Your task to perform on an android device: Add "panasonic triple a" to the cart on bestbuy.com Image 0: 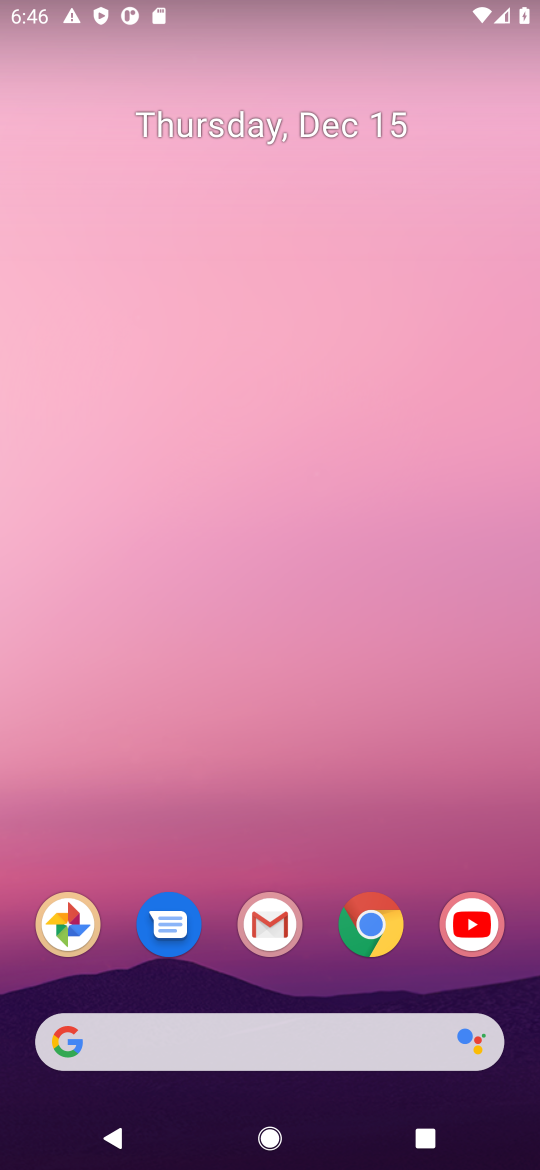
Step 0: click (380, 936)
Your task to perform on an android device: Add "panasonic triple a" to the cart on bestbuy.com Image 1: 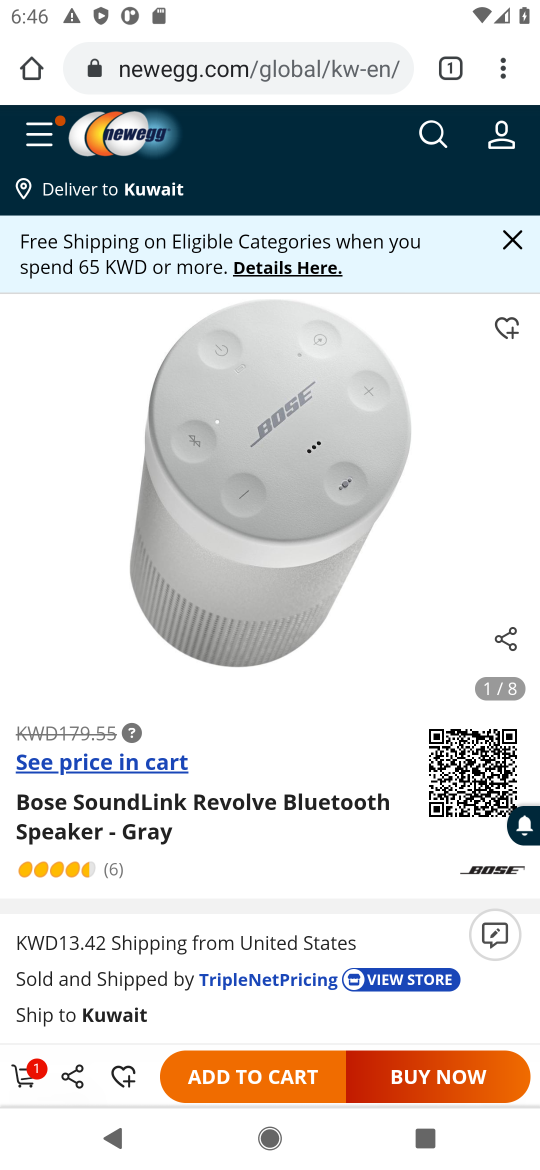
Step 1: click (158, 76)
Your task to perform on an android device: Add "panasonic triple a" to the cart on bestbuy.com Image 2: 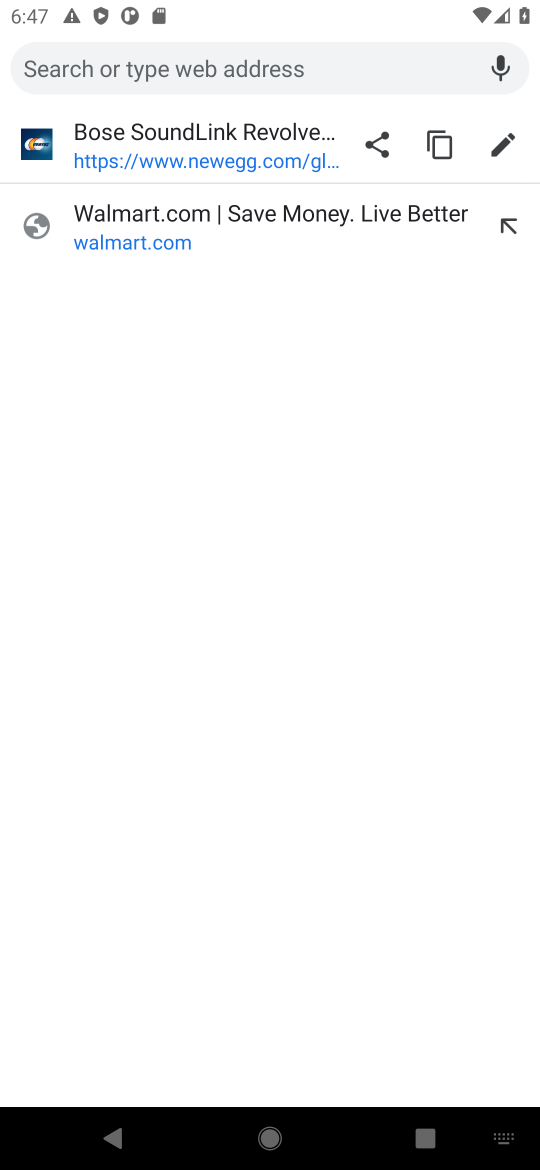
Step 2: type "bestbuy"
Your task to perform on an android device: Add "panasonic triple a" to the cart on bestbuy.com Image 3: 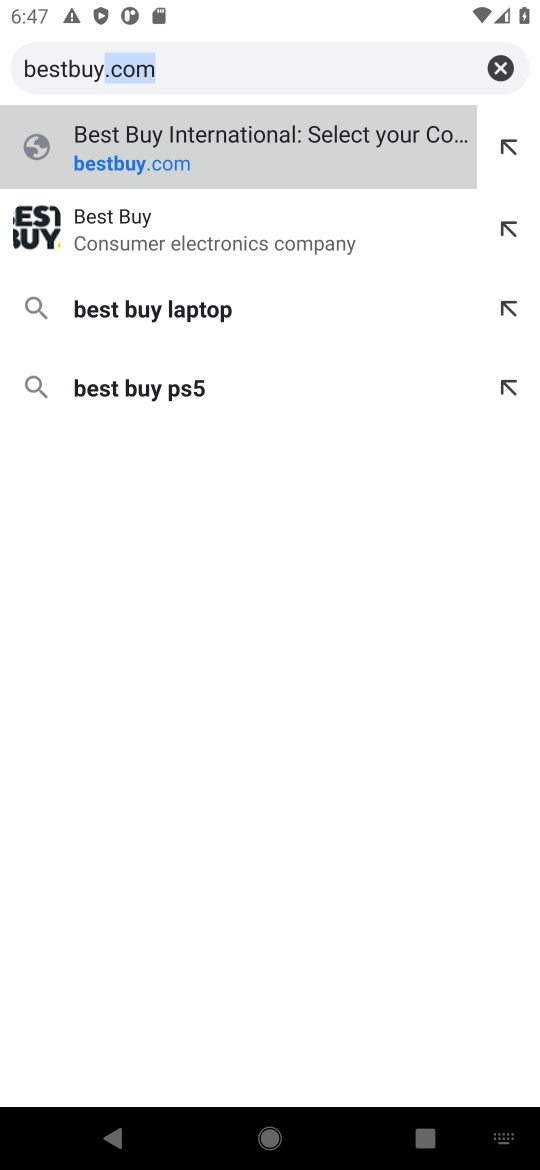
Step 3: click (158, 169)
Your task to perform on an android device: Add "panasonic triple a" to the cart on bestbuy.com Image 4: 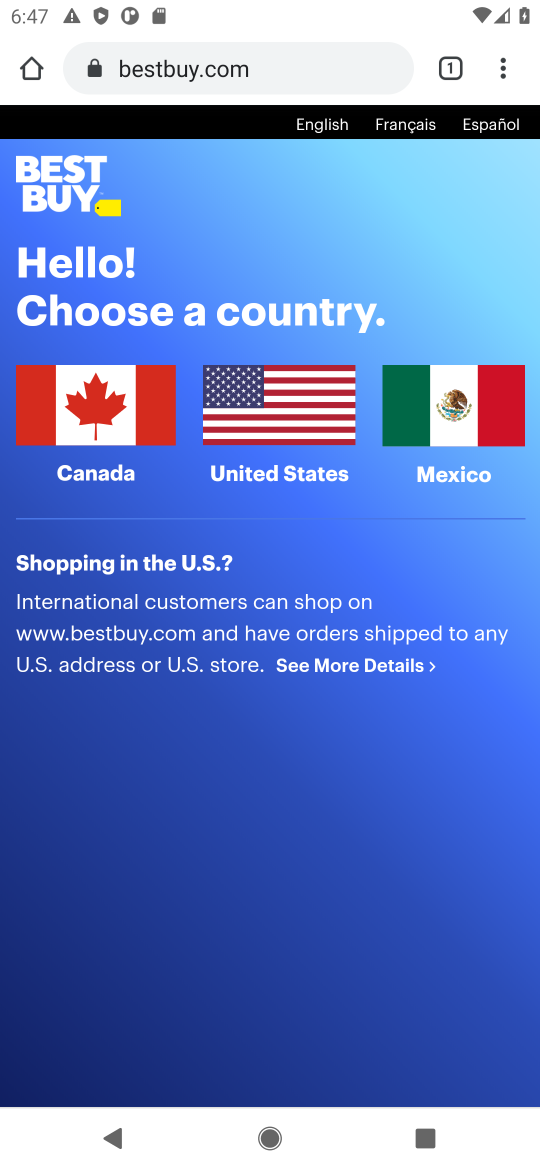
Step 4: click (275, 390)
Your task to perform on an android device: Add "panasonic triple a" to the cart on bestbuy.com Image 5: 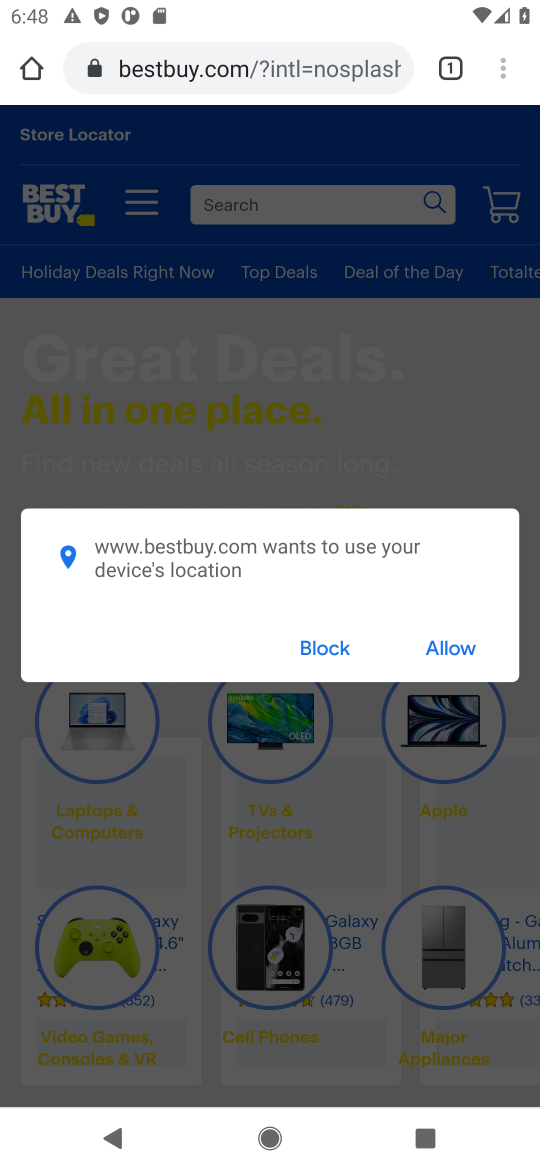
Step 5: click (423, 649)
Your task to perform on an android device: Add "panasonic triple a" to the cart on bestbuy.com Image 6: 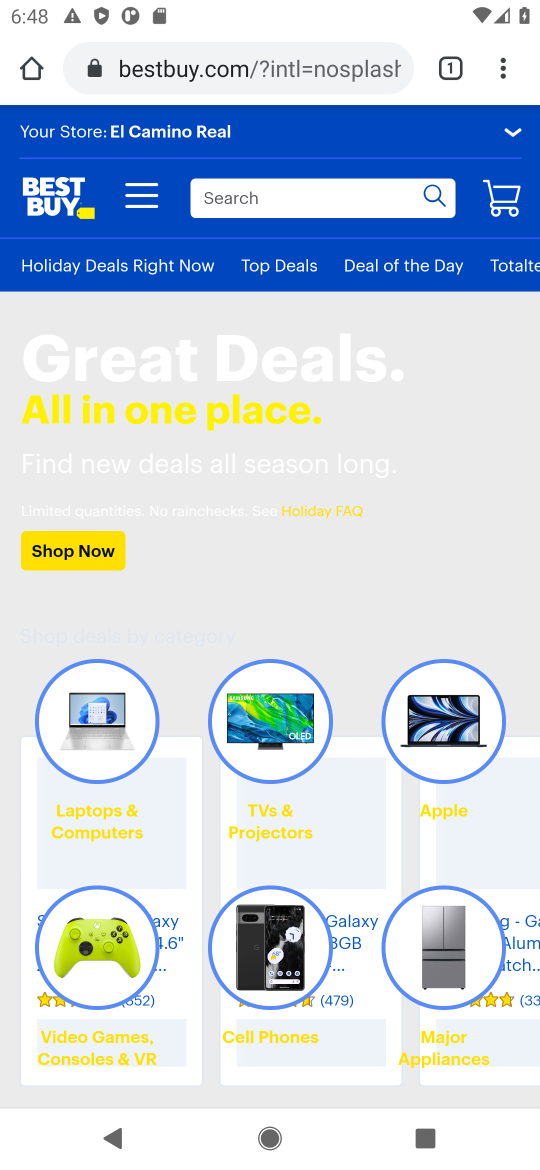
Step 6: click (247, 207)
Your task to perform on an android device: Add "panasonic triple a" to the cart on bestbuy.com Image 7: 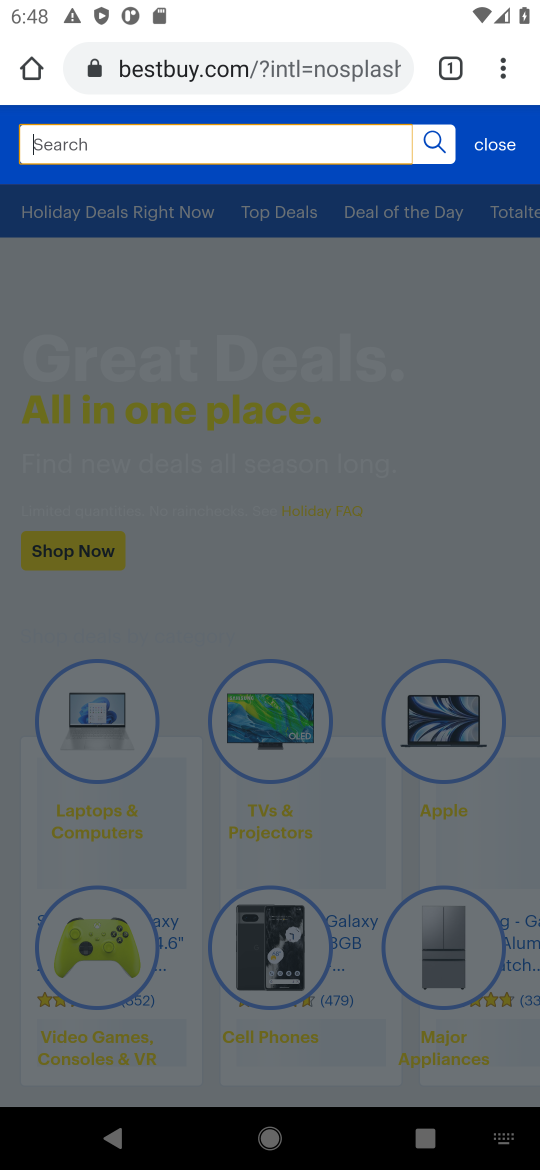
Step 7: type "panasonic triple a"
Your task to perform on an android device: Add "panasonic triple a" to the cart on bestbuy.com Image 8: 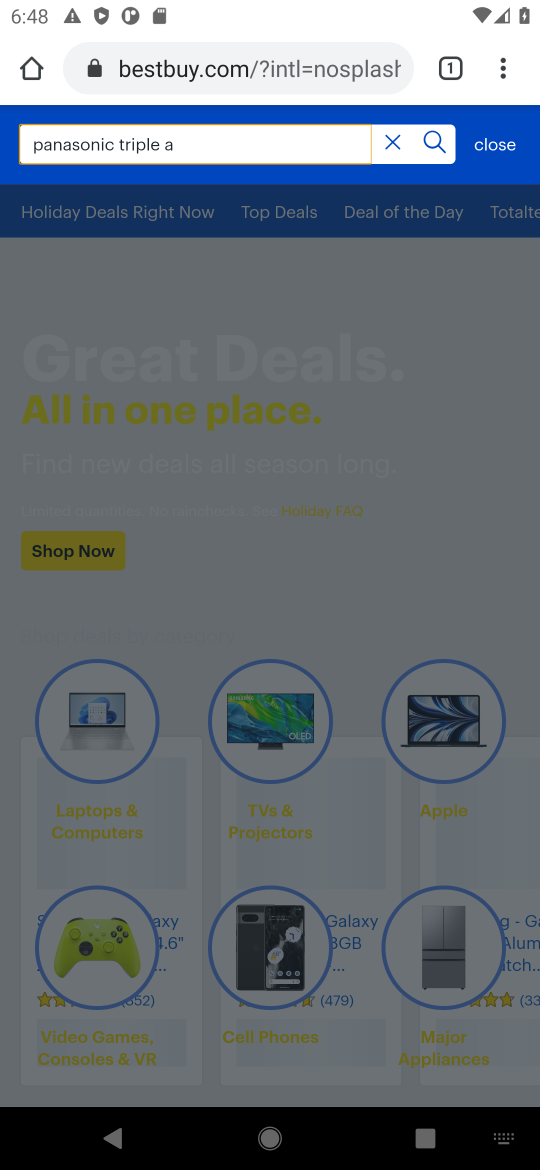
Step 8: click (439, 138)
Your task to perform on an android device: Add "panasonic triple a" to the cart on bestbuy.com Image 9: 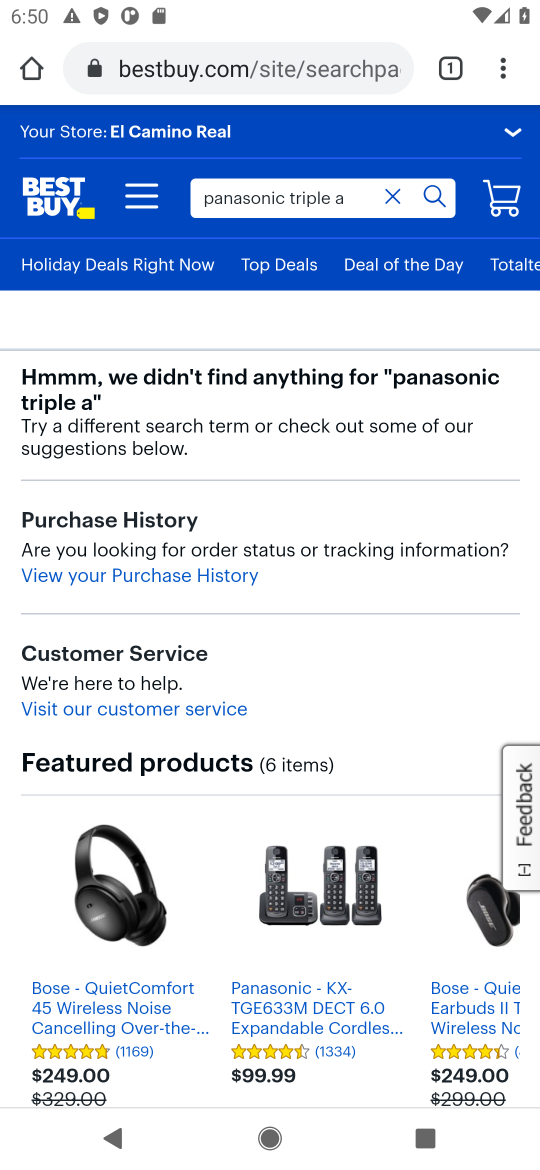
Step 9: task complete